Your task to perform on an android device: open wifi settings Image 0: 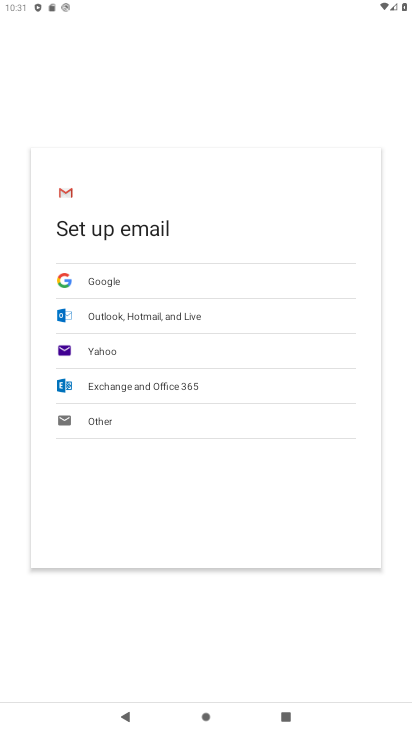
Step 0: press back button
Your task to perform on an android device: open wifi settings Image 1: 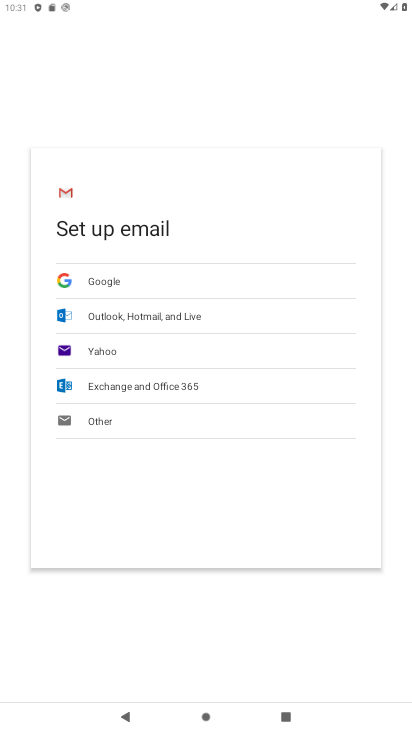
Step 1: press back button
Your task to perform on an android device: open wifi settings Image 2: 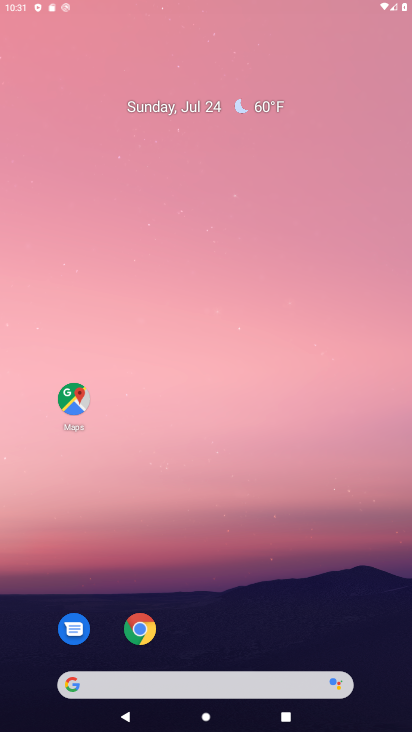
Step 2: press back button
Your task to perform on an android device: open wifi settings Image 3: 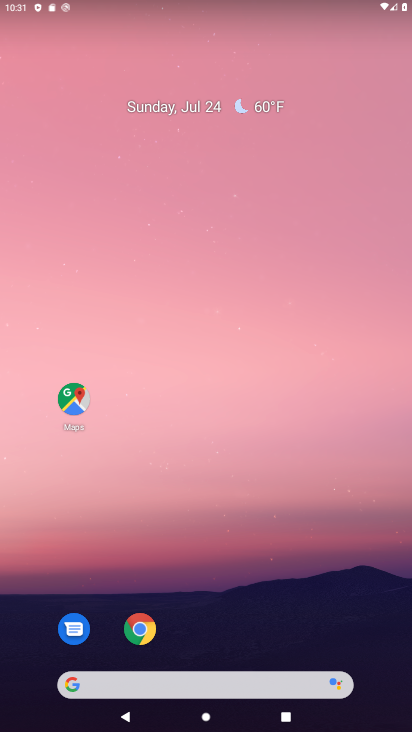
Step 3: drag from (223, 631) to (256, 3)
Your task to perform on an android device: open wifi settings Image 4: 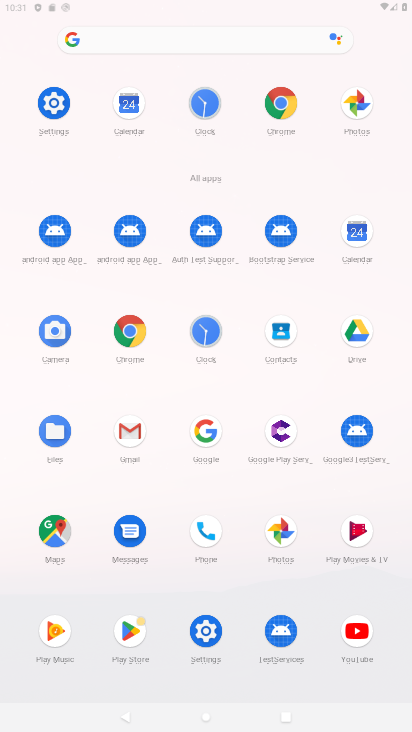
Step 4: drag from (213, 565) to (156, 36)
Your task to perform on an android device: open wifi settings Image 5: 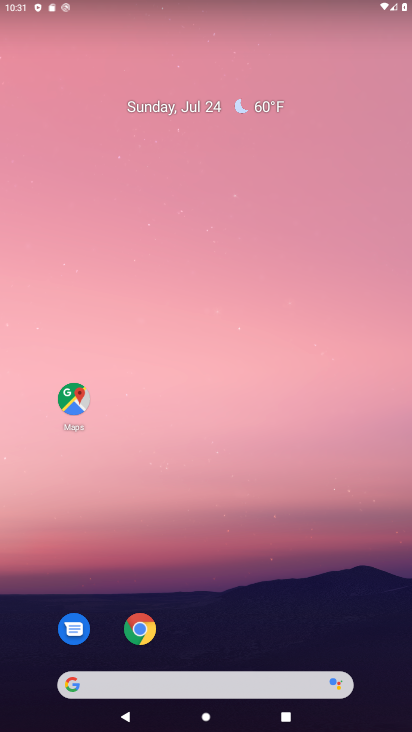
Step 5: drag from (230, 562) to (180, 158)
Your task to perform on an android device: open wifi settings Image 6: 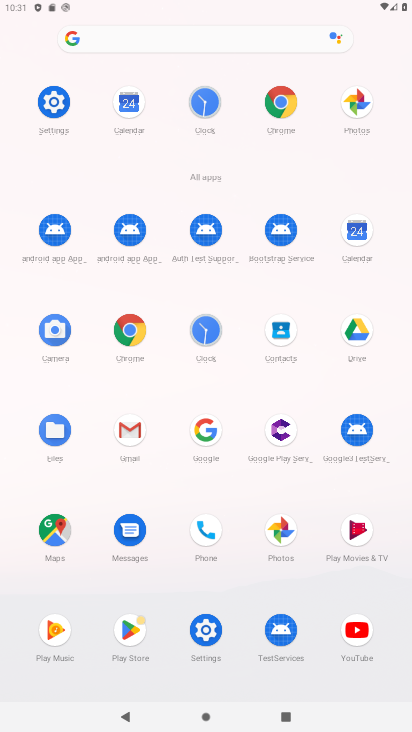
Step 6: drag from (237, 599) to (216, 19)
Your task to perform on an android device: open wifi settings Image 7: 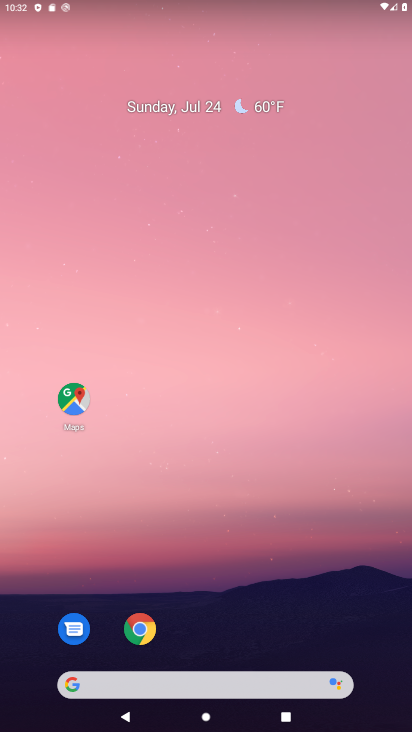
Step 7: click (239, 177)
Your task to perform on an android device: open wifi settings Image 8: 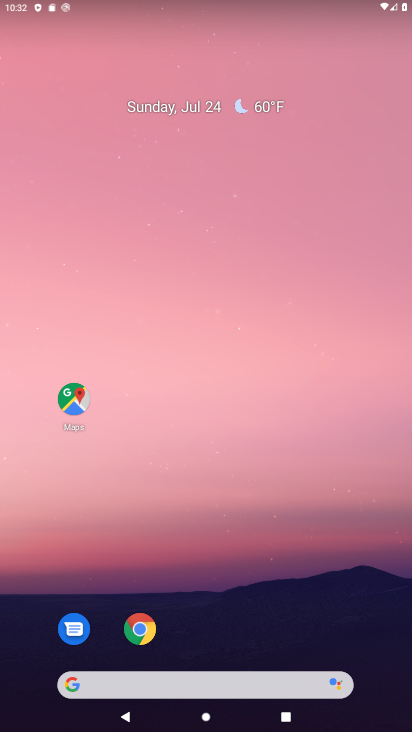
Step 8: drag from (276, 510) to (220, 0)
Your task to perform on an android device: open wifi settings Image 9: 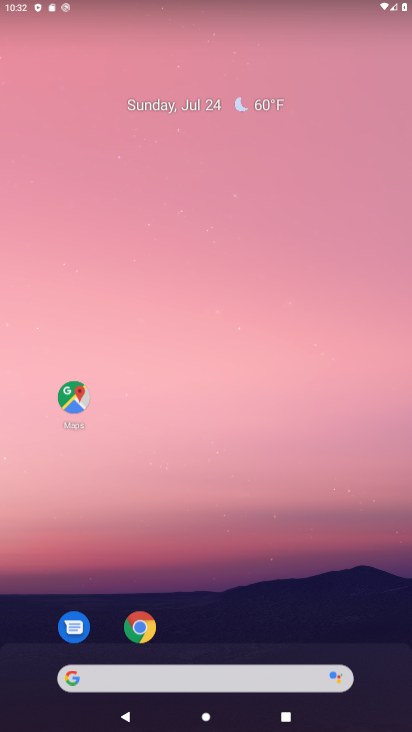
Step 9: drag from (199, 532) to (193, 179)
Your task to perform on an android device: open wifi settings Image 10: 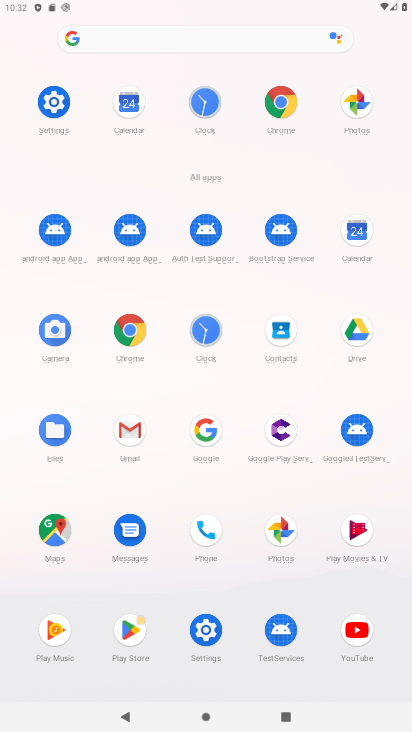
Step 10: click (49, 101)
Your task to perform on an android device: open wifi settings Image 11: 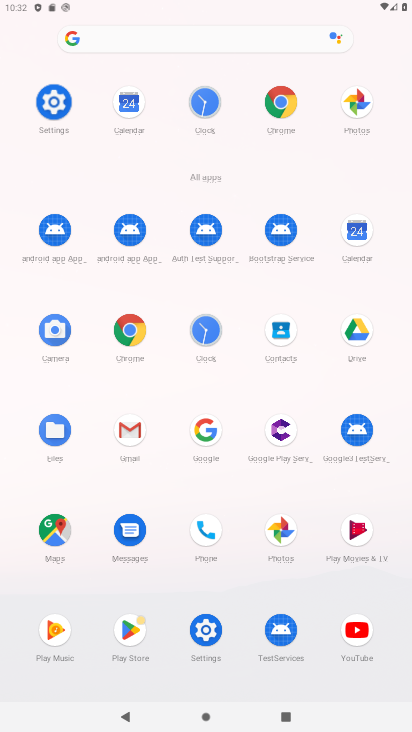
Step 11: click (54, 101)
Your task to perform on an android device: open wifi settings Image 12: 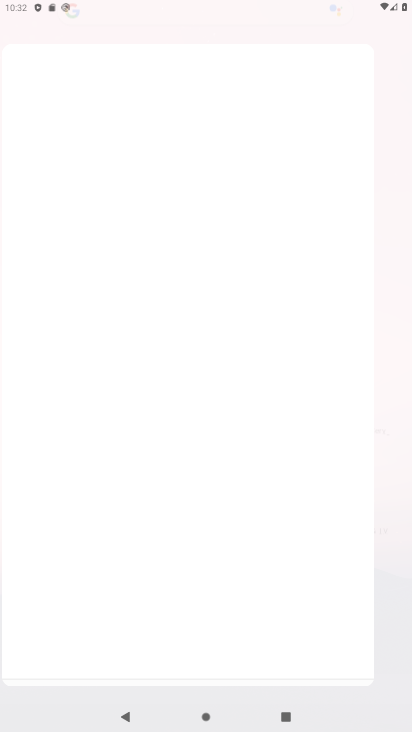
Step 12: click (56, 103)
Your task to perform on an android device: open wifi settings Image 13: 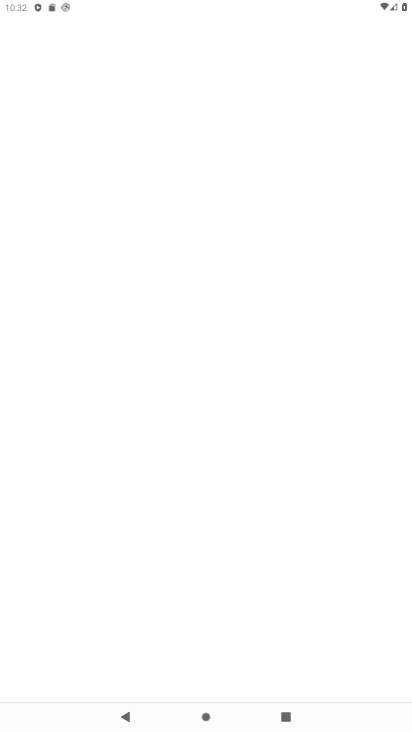
Step 13: click (56, 103)
Your task to perform on an android device: open wifi settings Image 14: 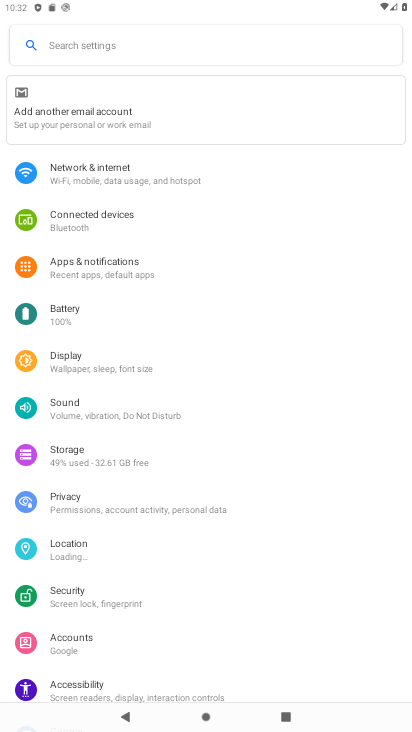
Step 14: click (86, 167)
Your task to perform on an android device: open wifi settings Image 15: 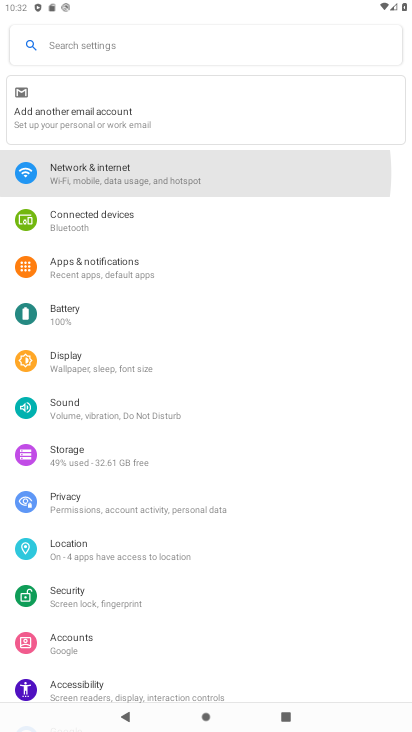
Step 15: click (86, 167)
Your task to perform on an android device: open wifi settings Image 16: 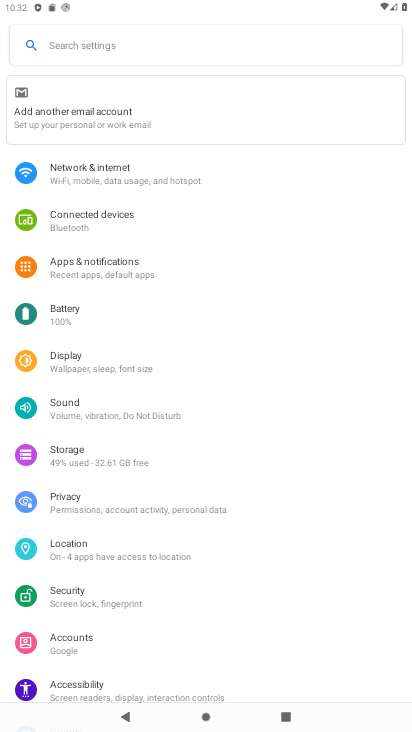
Step 16: click (86, 167)
Your task to perform on an android device: open wifi settings Image 17: 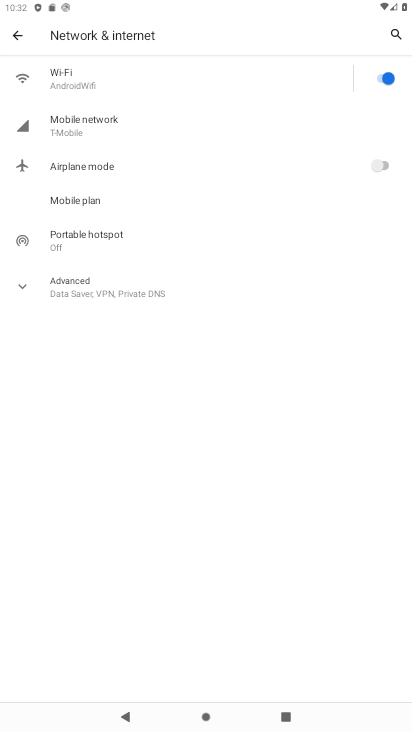
Step 17: task complete